Your task to perform on an android device: Search for "usb-a" on bestbuy, select the first entry, and add it to the cart. Image 0: 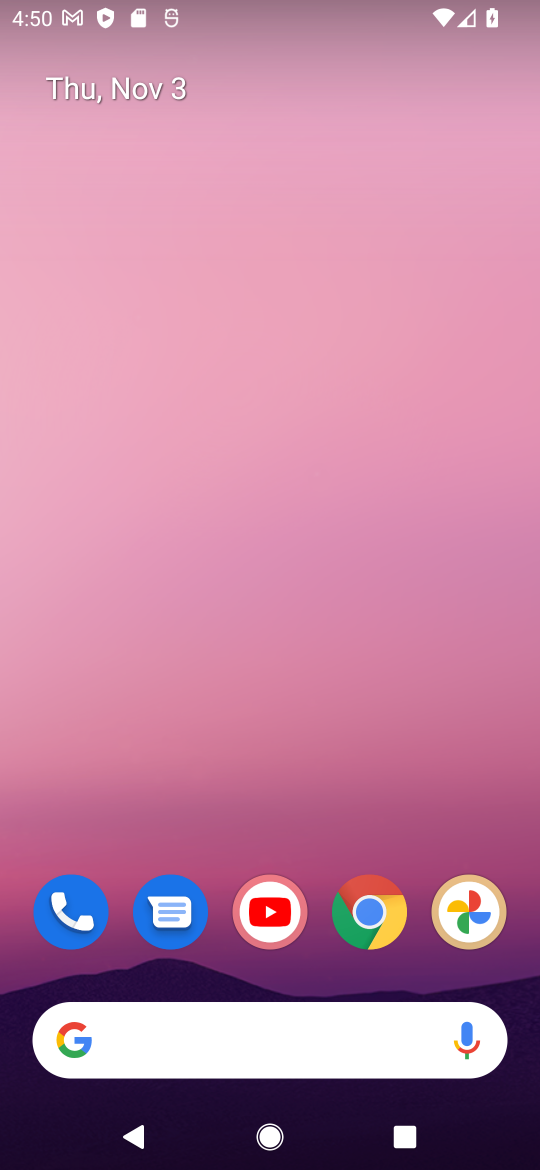
Step 0: click (370, 924)
Your task to perform on an android device: Search for "usb-a" on bestbuy, select the first entry, and add it to the cart. Image 1: 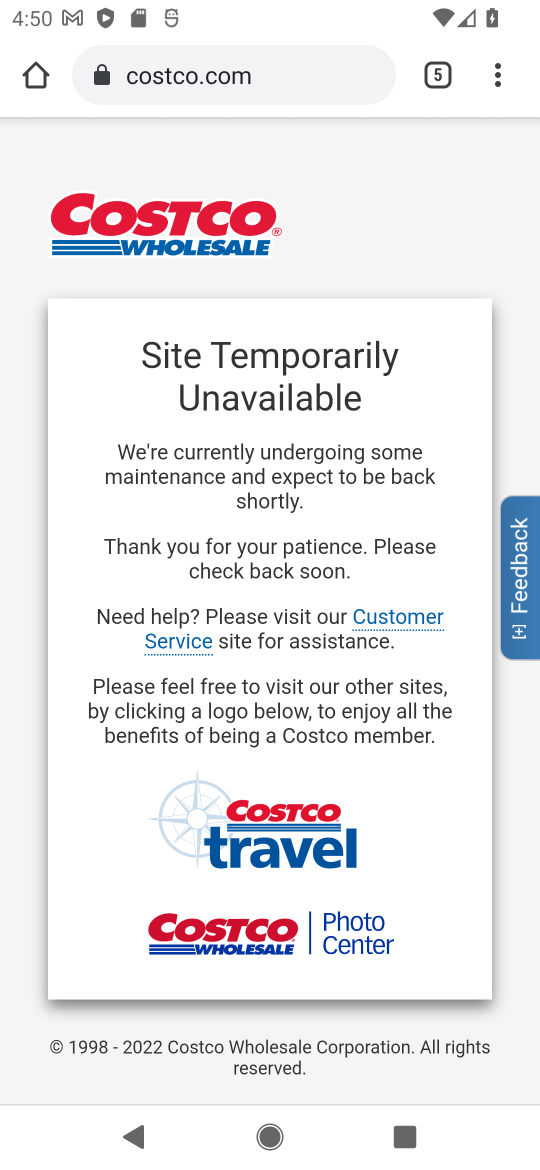
Step 1: click (429, 63)
Your task to perform on an android device: Search for "usb-a" on bestbuy, select the first entry, and add it to the cart. Image 2: 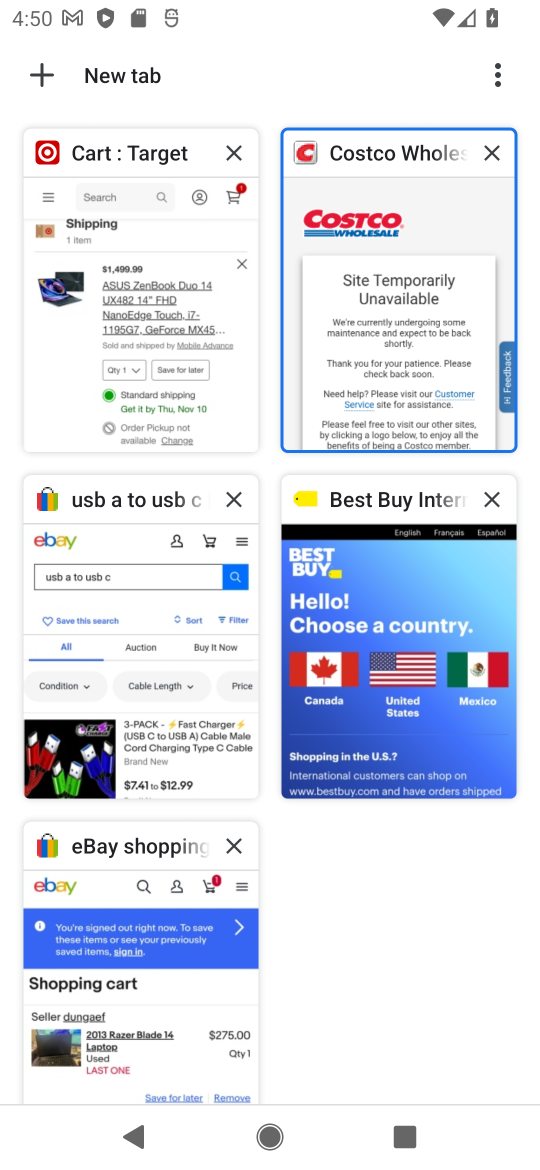
Step 2: click (409, 656)
Your task to perform on an android device: Search for "usb-a" on bestbuy, select the first entry, and add it to the cart. Image 3: 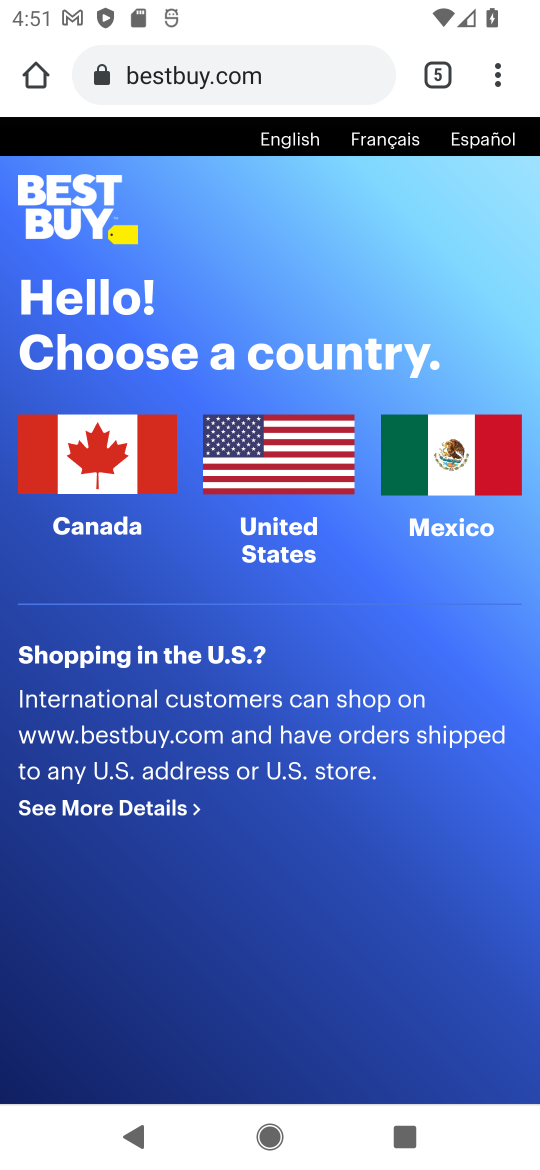
Step 3: click (137, 463)
Your task to perform on an android device: Search for "usb-a" on bestbuy, select the first entry, and add it to the cart. Image 4: 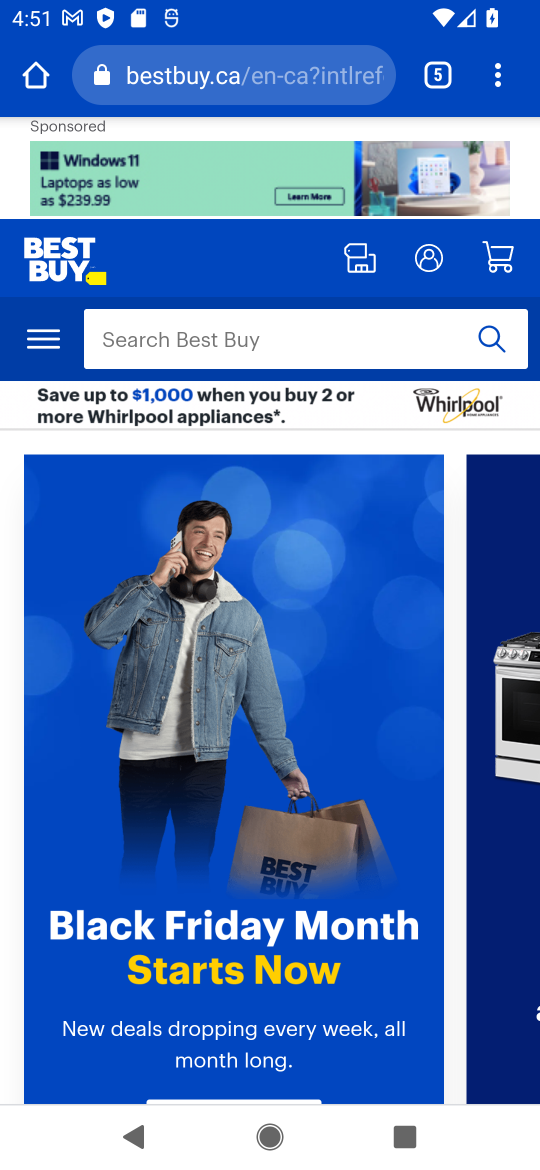
Step 4: click (213, 335)
Your task to perform on an android device: Search for "usb-a" on bestbuy, select the first entry, and add it to the cart. Image 5: 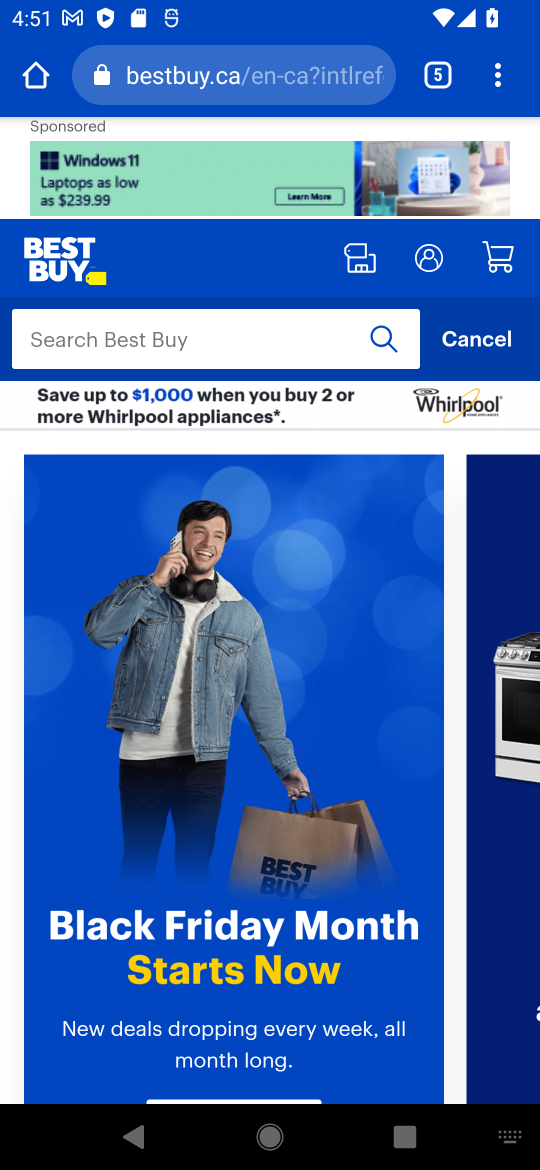
Step 5: click (99, 337)
Your task to perform on an android device: Search for "usb-a" on bestbuy, select the first entry, and add it to the cart. Image 6: 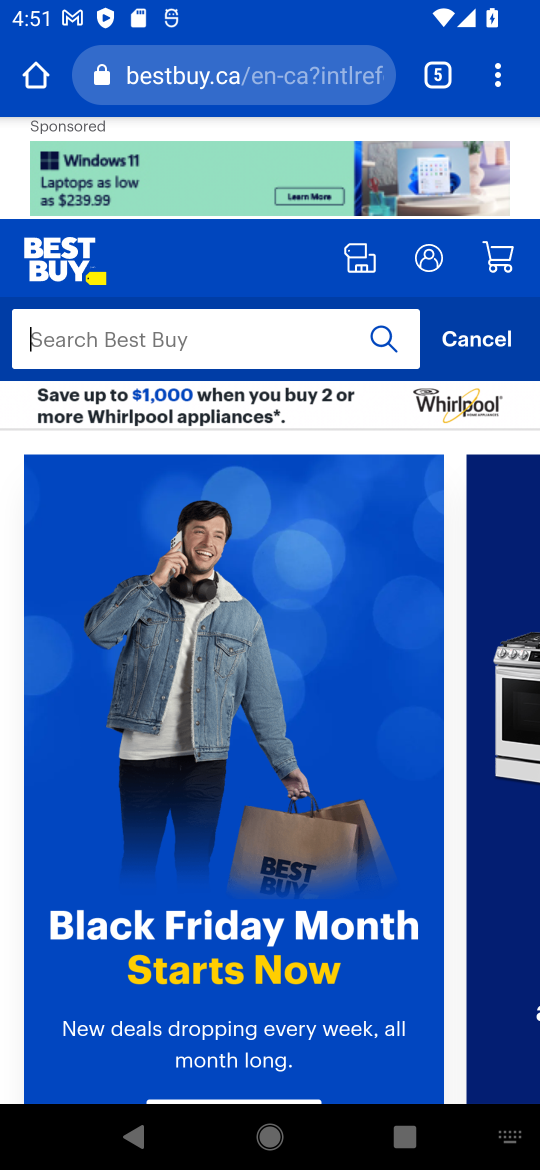
Step 6: type "usb-a"
Your task to perform on an android device: Search for "usb-a" on bestbuy, select the first entry, and add it to the cart. Image 7: 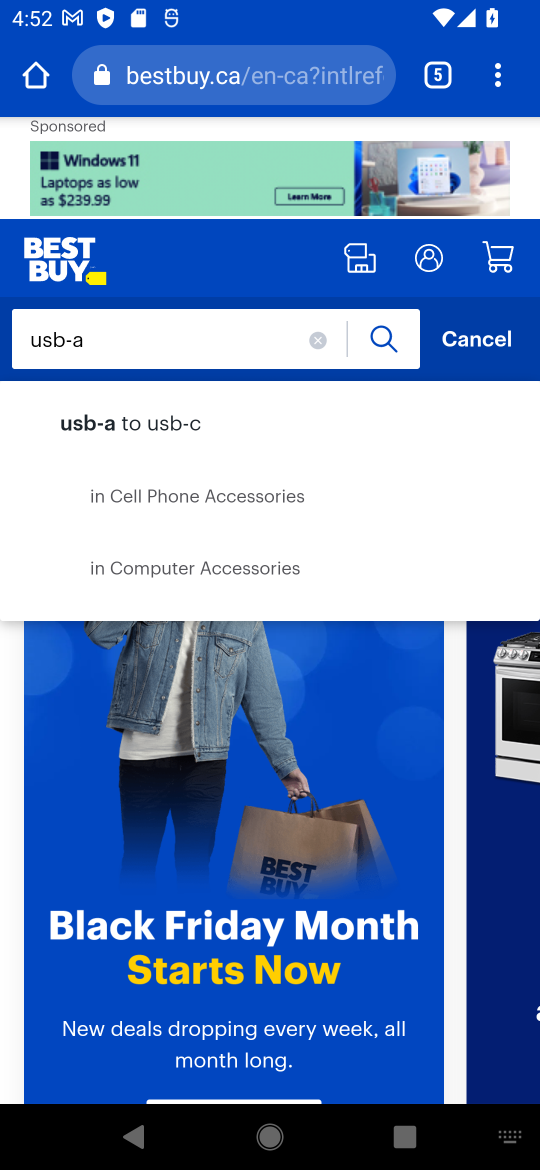
Step 7: click (181, 432)
Your task to perform on an android device: Search for "usb-a" on bestbuy, select the first entry, and add it to the cart. Image 8: 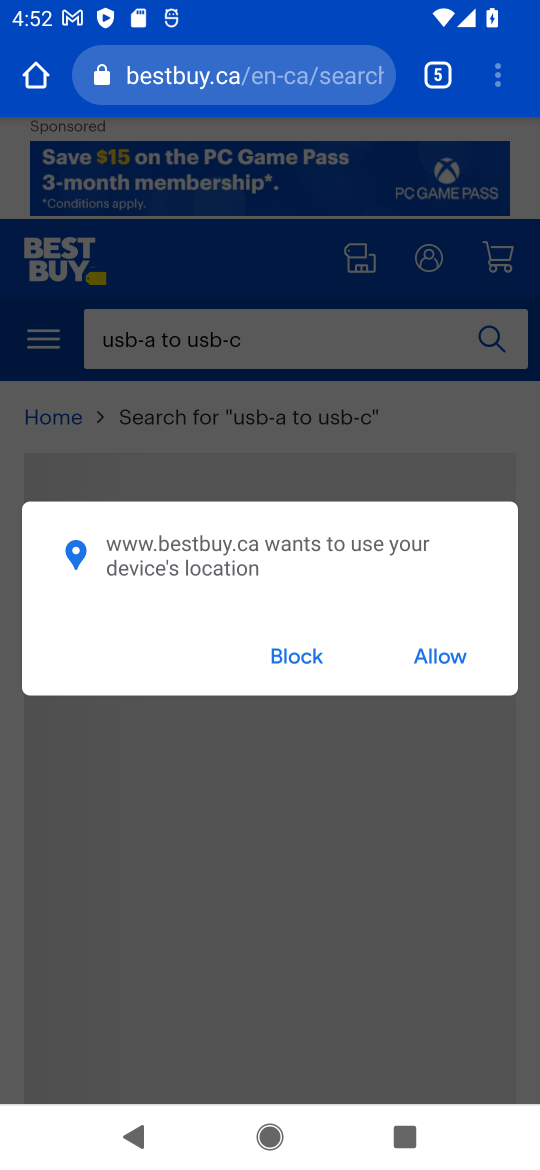
Step 8: click (289, 648)
Your task to perform on an android device: Search for "usb-a" on bestbuy, select the first entry, and add it to the cart. Image 9: 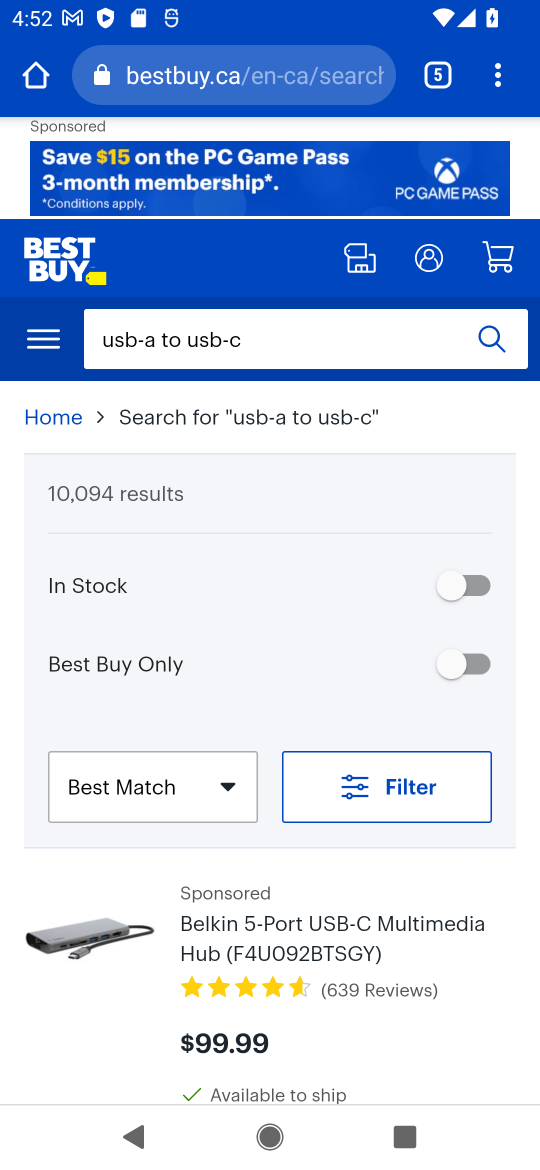
Step 9: task complete